Your task to perform on an android device: Turn off the flashlight Image 0: 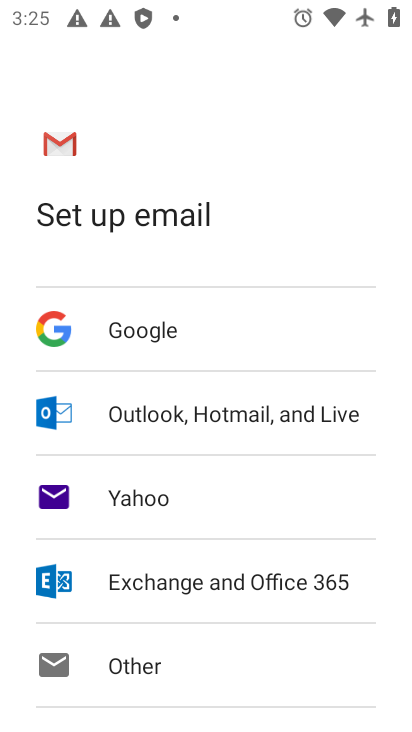
Step 0: press home button
Your task to perform on an android device: Turn off the flashlight Image 1: 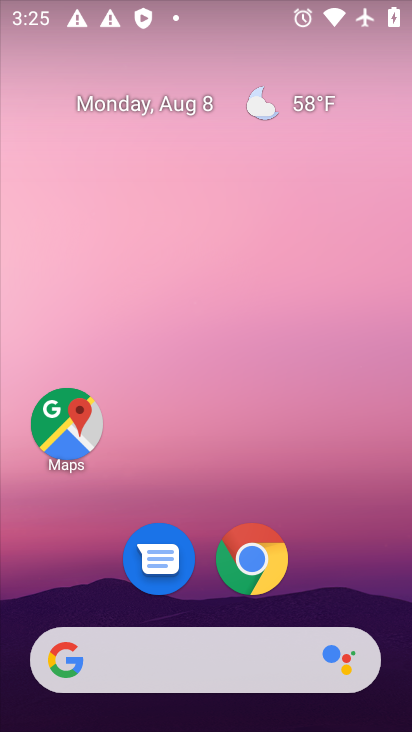
Step 1: drag from (186, 696) to (271, 220)
Your task to perform on an android device: Turn off the flashlight Image 2: 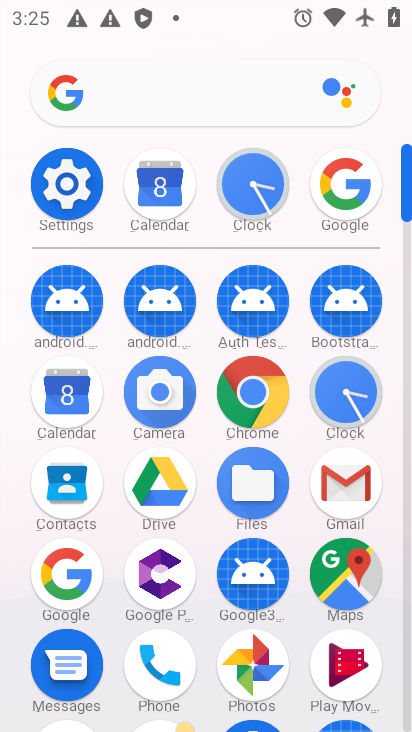
Step 2: click (67, 187)
Your task to perform on an android device: Turn off the flashlight Image 3: 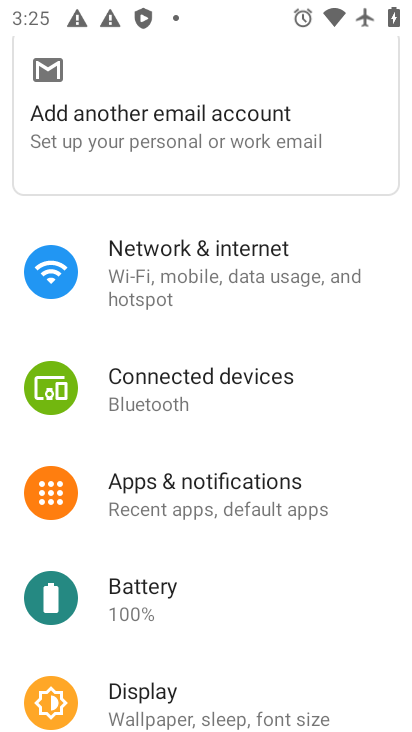
Step 3: drag from (145, 554) to (256, 339)
Your task to perform on an android device: Turn off the flashlight Image 4: 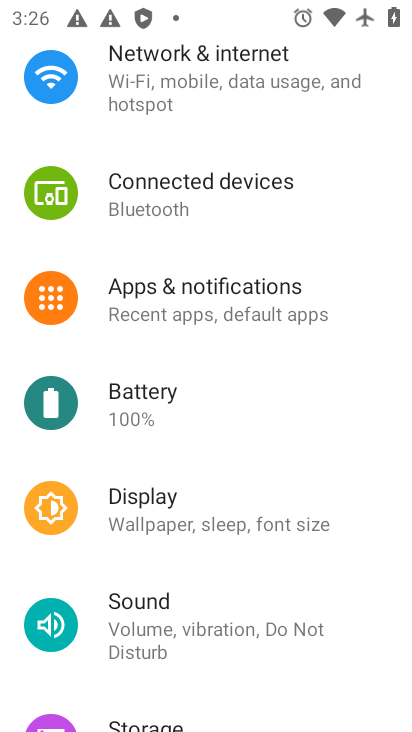
Step 4: click (149, 520)
Your task to perform on an android device: Turn off the flashlight Image 5: 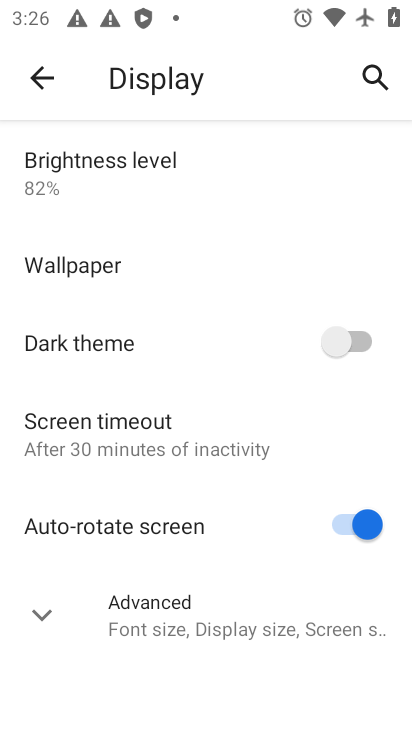
Step 5: click (366, 78)
Your task to perform on an android device: Turn off the flashlight Image 6: 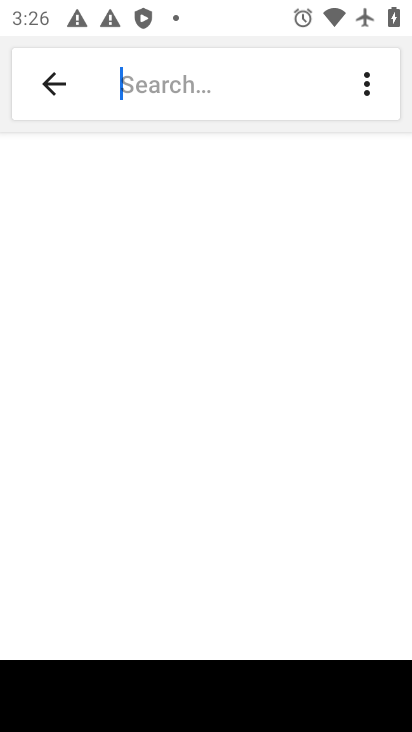
Step 6: click (53, 81)
Your task to perform on an android device: Turn off the flashlight Image 7: 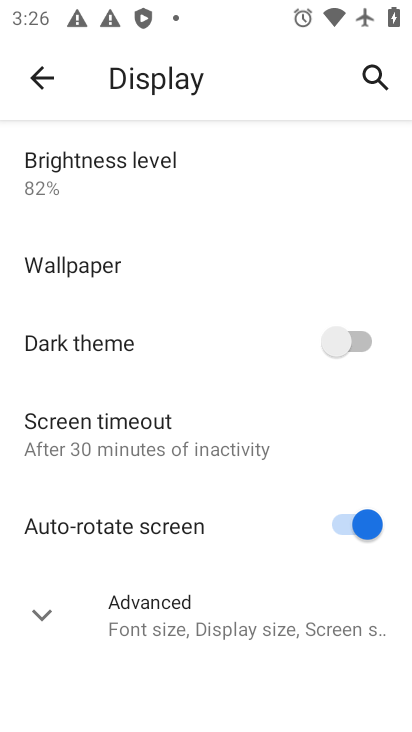
Step 7: drag from (150, 510) to (190, 428)
Your task to perform on an android device: Turn off the flashlight Image 8: 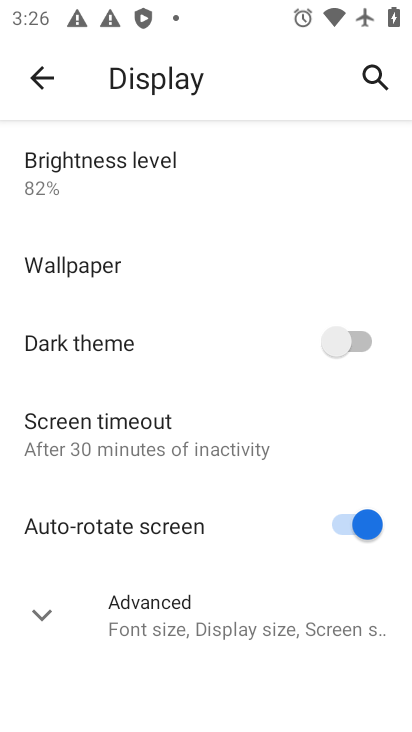
Step 8: click (192, 615)
Your task to perform on an android device: Turn off the flashlight Image 9: 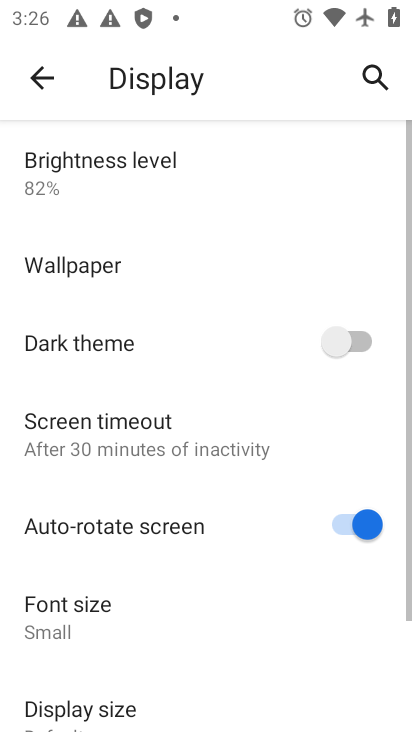
Step 9: drag from (182, 601) to (226, 420)
Your task to perform on an android device: Turn off the flashlight Image 10: 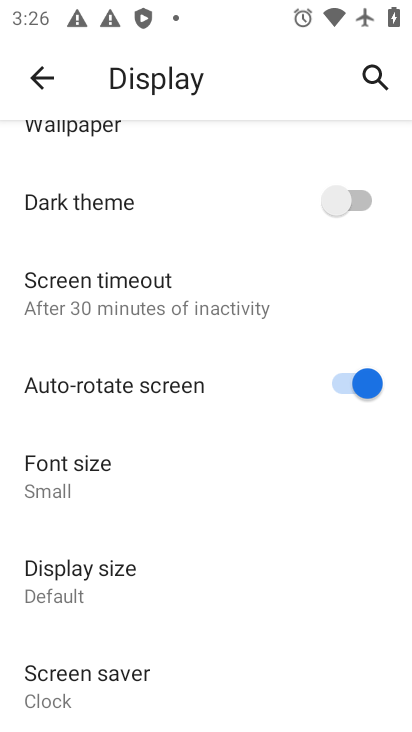
Step 10: drag from (147, 622) to (181, 488)
Your task to perform on an android device: Turn off the flashlight Image 11: 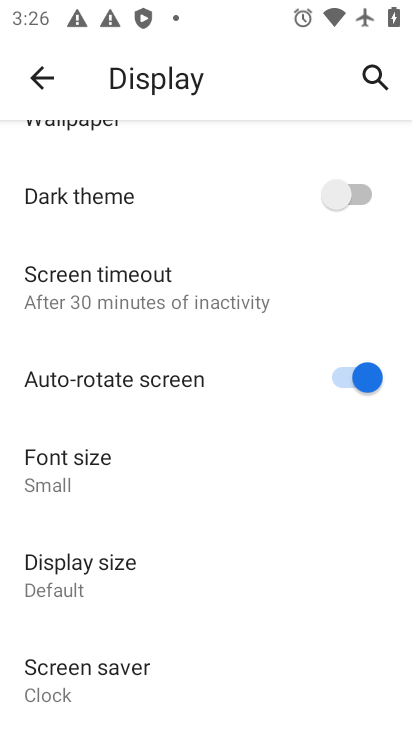
Step 11: click (374, 74)
Your task to perform on an android device: Turn off the flashlight Image 12: 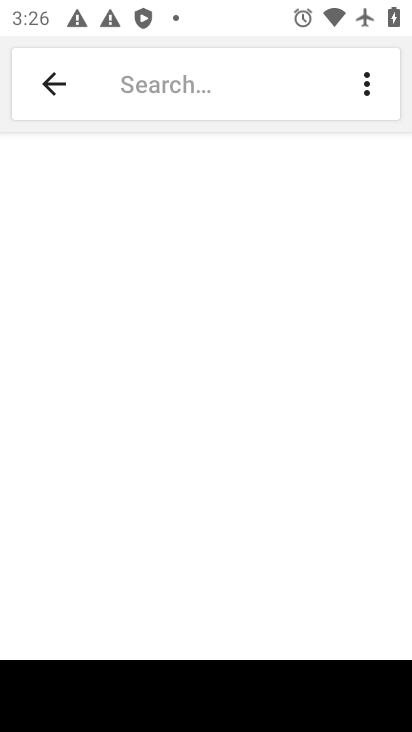
Step 12: click (235, 81)
Your task to perform on an android device: Turn off the flashlight Image 13: 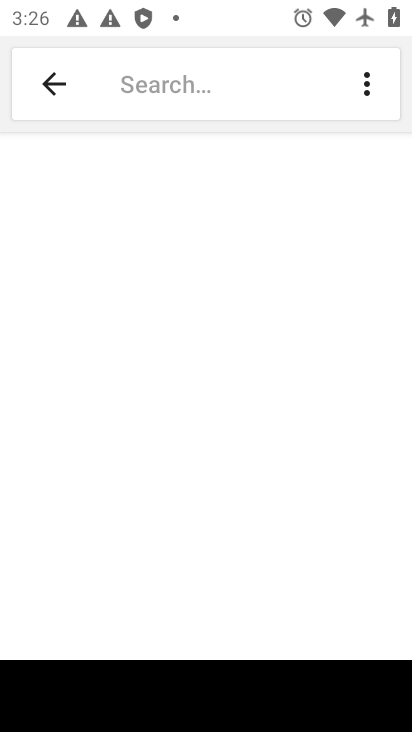
Step 13: type "flashlight"
Your task to perform on an android device: Turn off the flashlight Image 14: 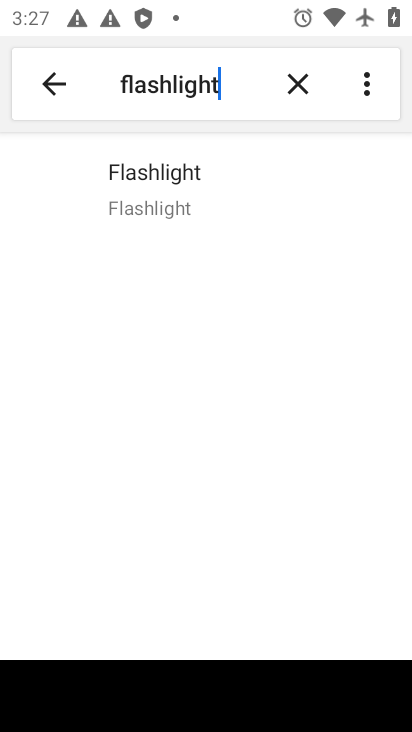
Step 14: task complete